Your task to perform on an android device: Open Yahoo.com Image 0: 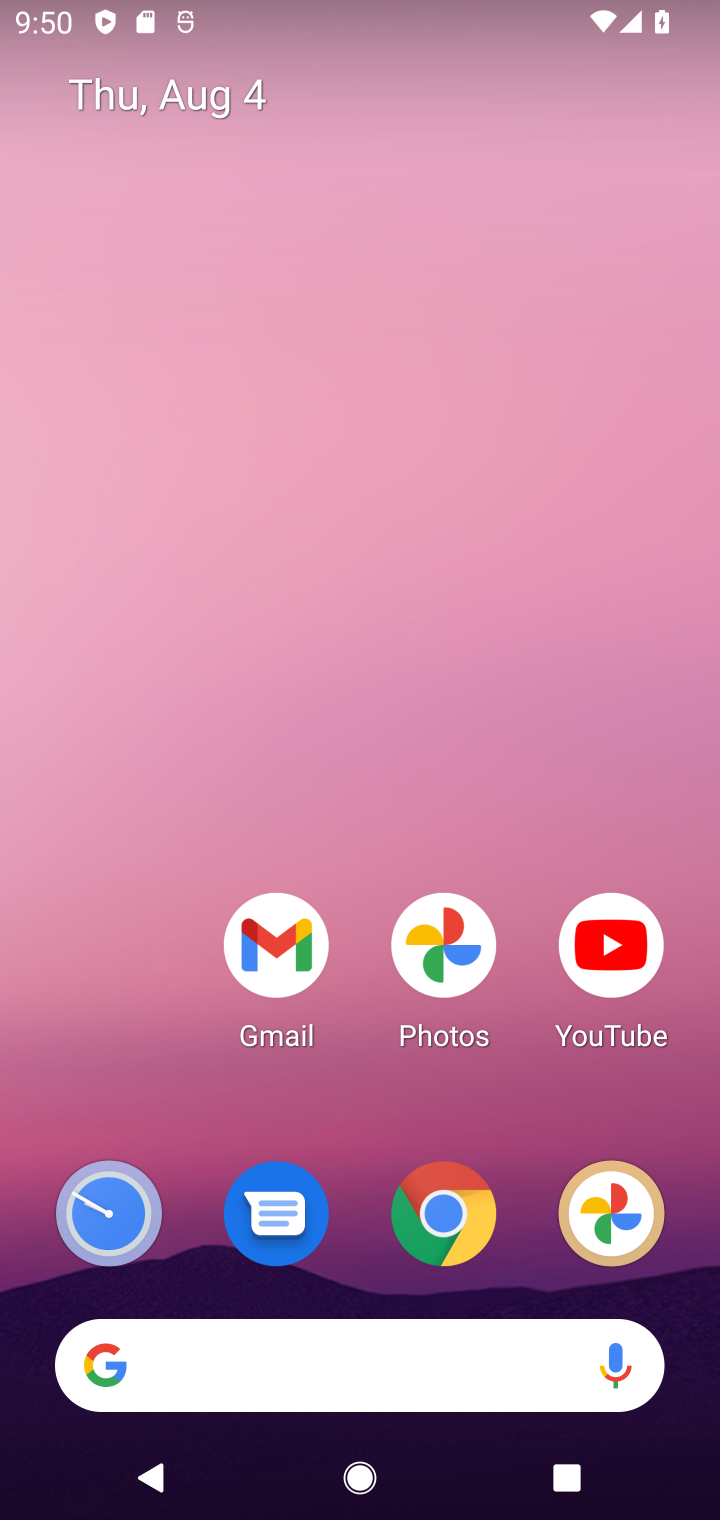
Step 0: click (445, 1230)
Your task to perform on an android device: Open Yahoo.com Image 1: 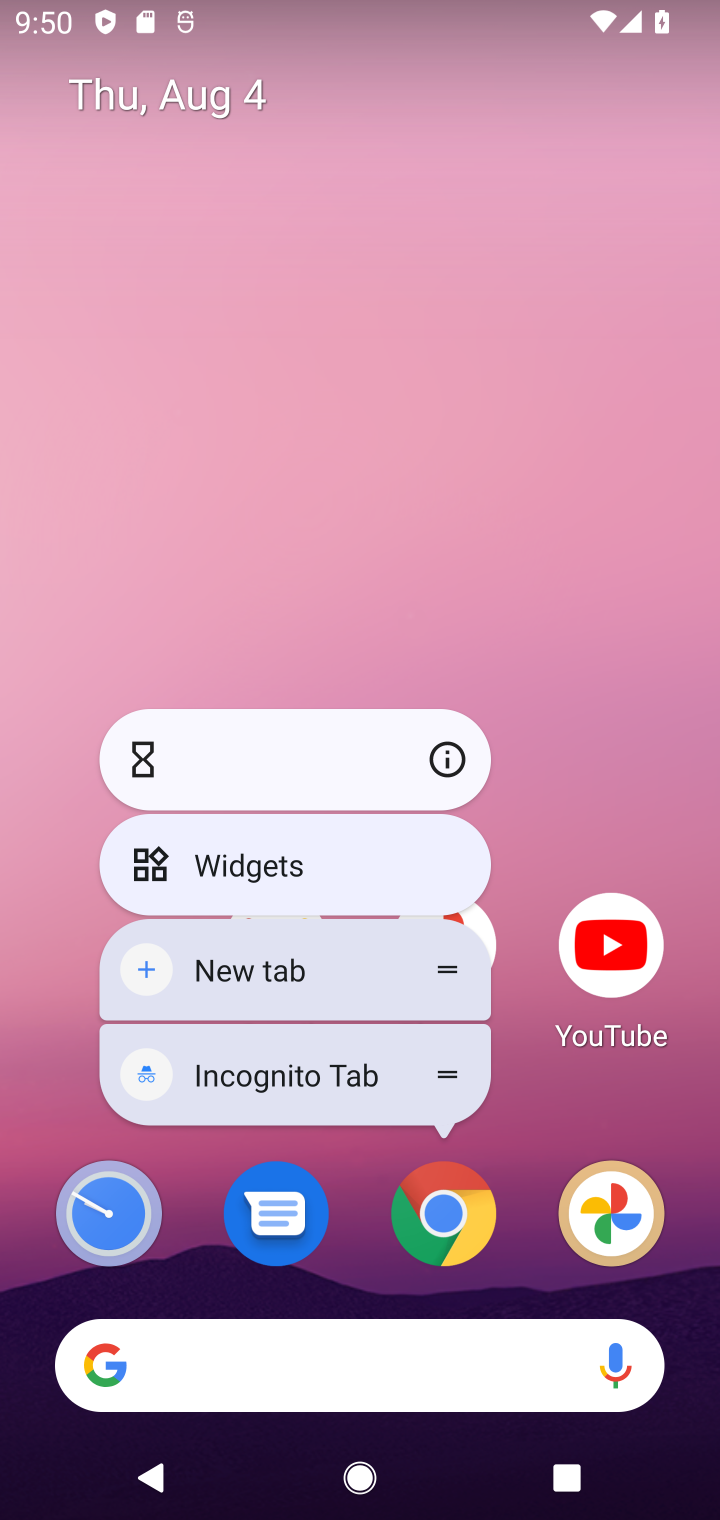
Step 1: click (430, 1209)
Your task to perform on an android device: Open Yahoo.com Image 2: 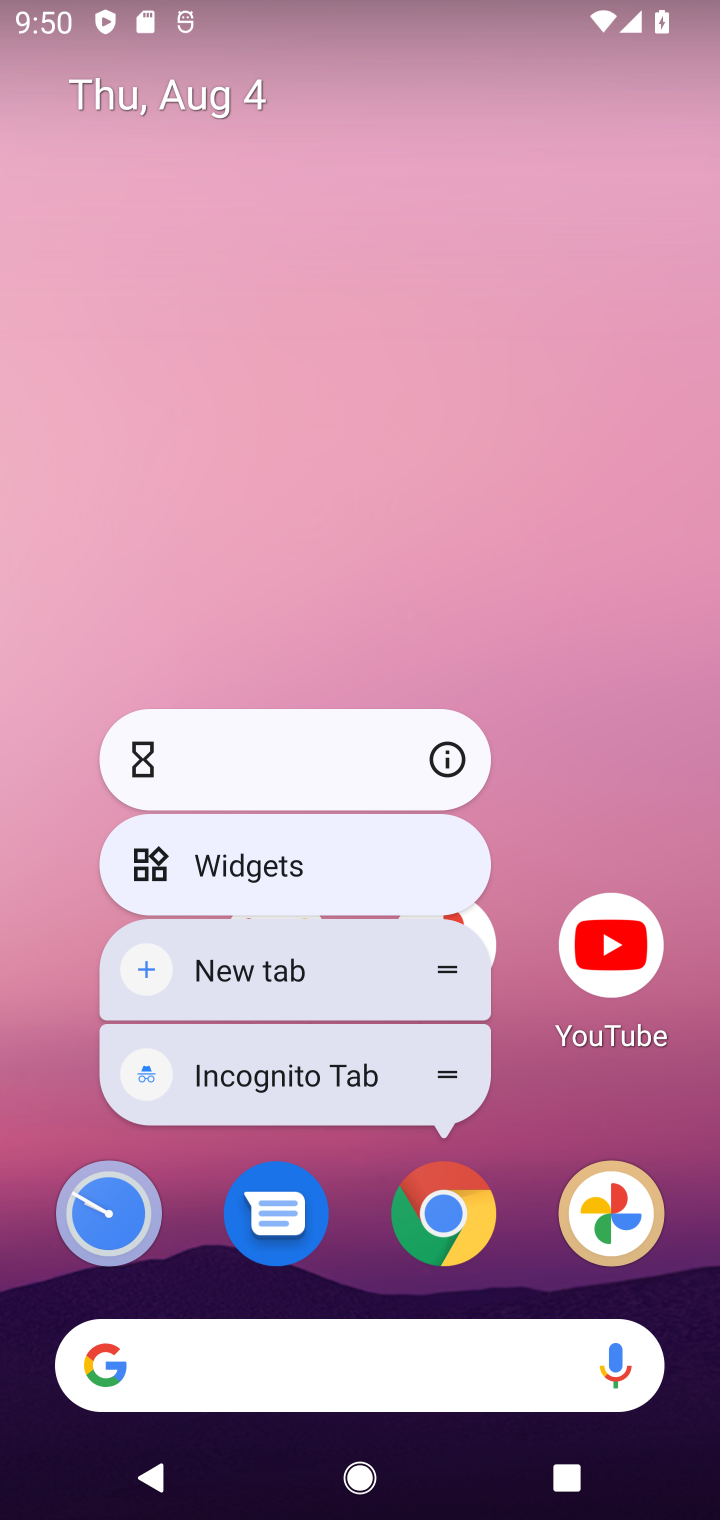
Step 2: click (457, 1230)
Your task to perform on an android device: Open Yahoo.com Image 3: 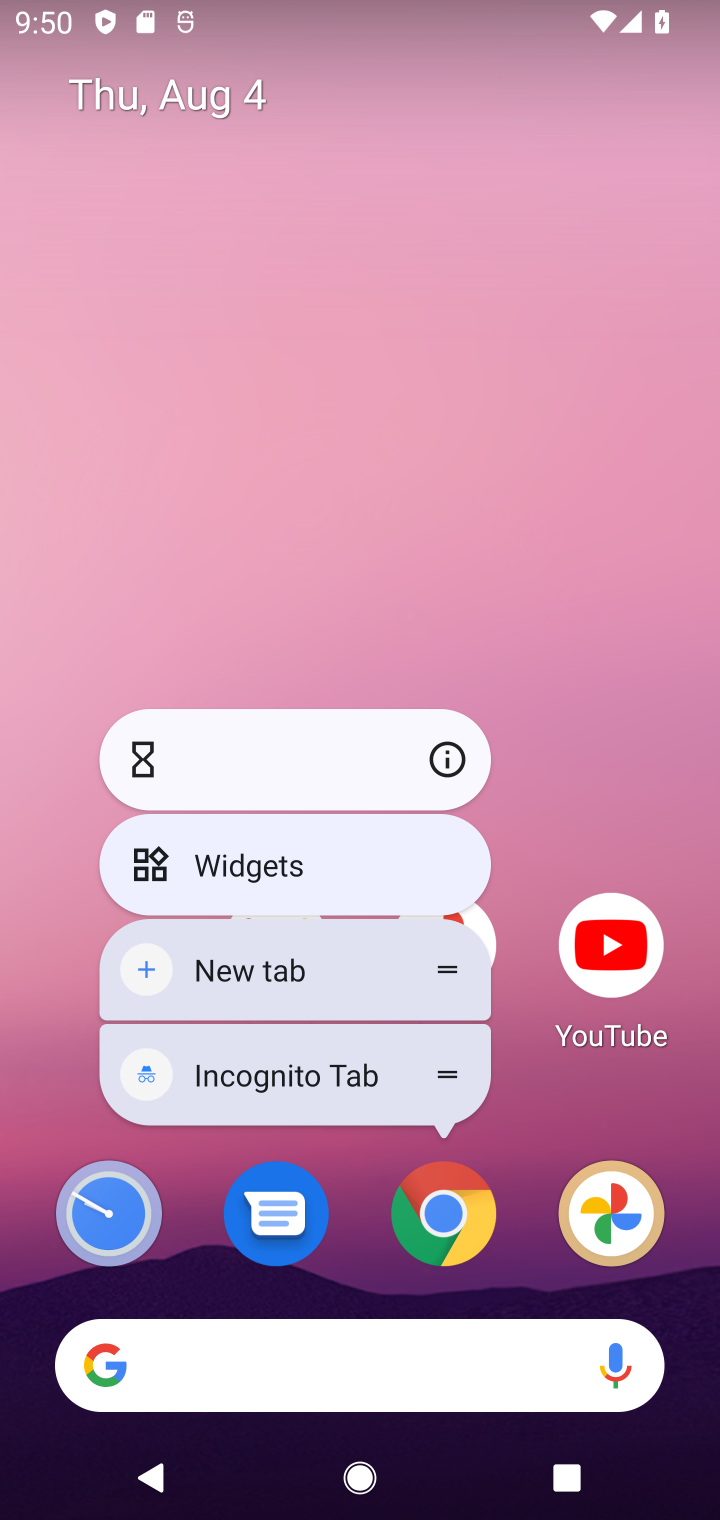
Step 3: click (459, 1251)
Your task to perform on an android device: Open Yahoo.com Image 4: 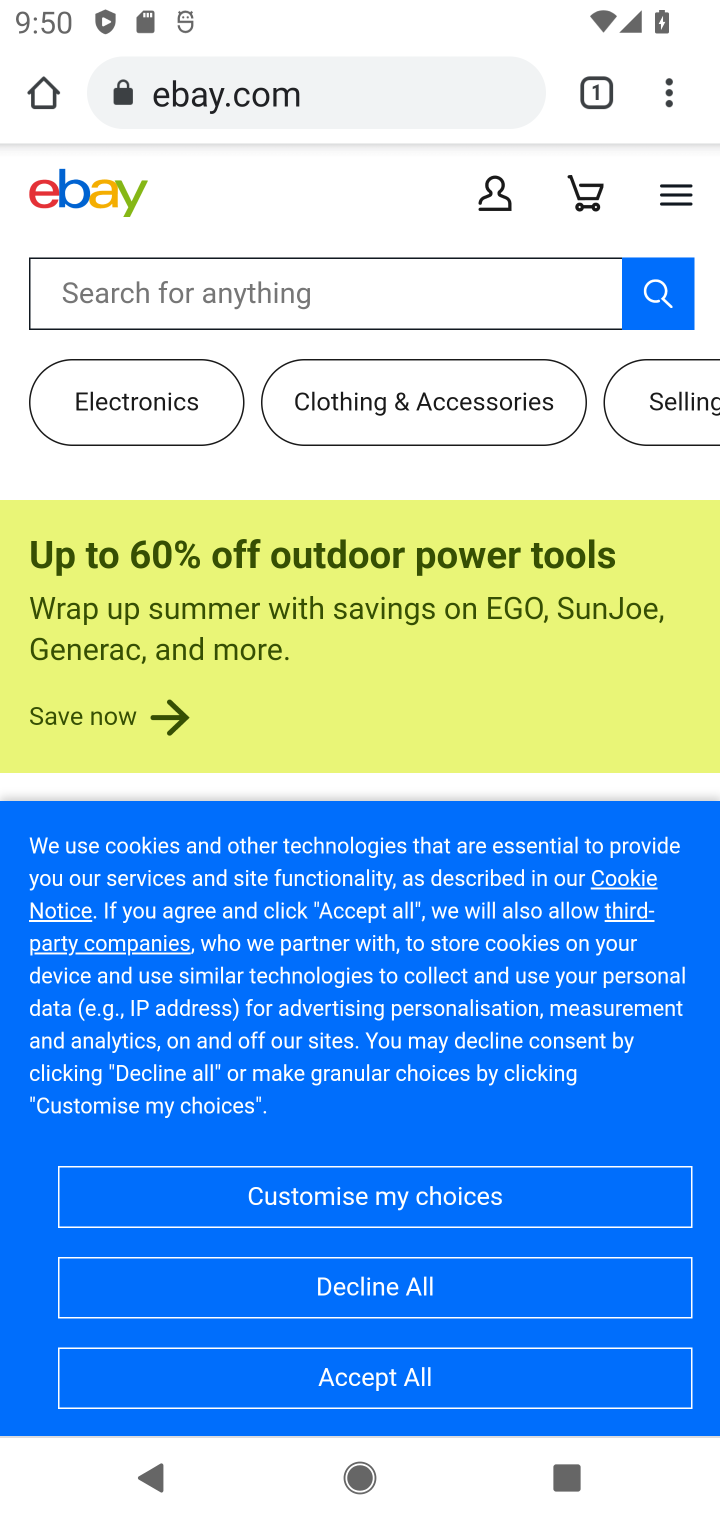
Step 4: click (340, 73)
Your task to perform on an android device: Open Yahoo.com Image 5: 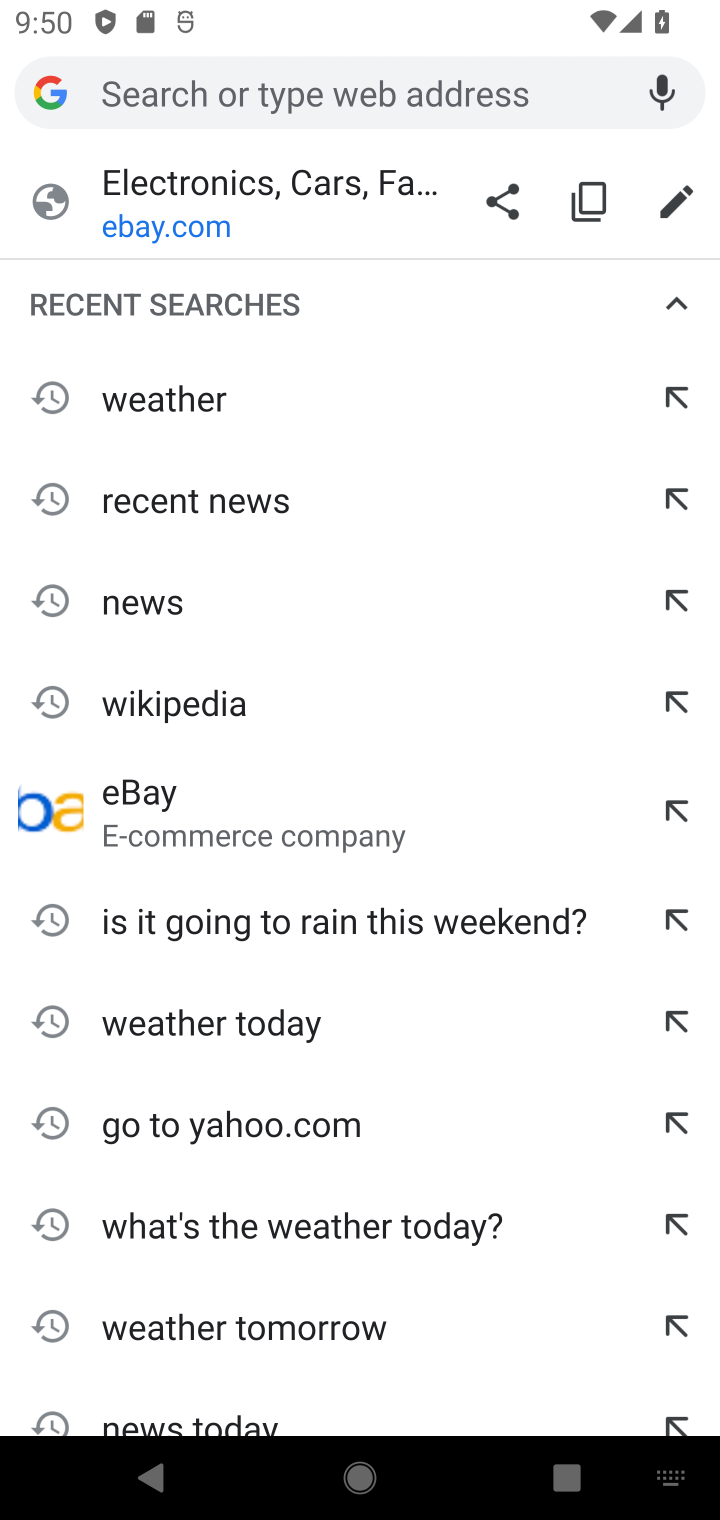
Step 5: type "yahoo.com"
Your task to perform on an android device: Open Yahoo.com Image 6: 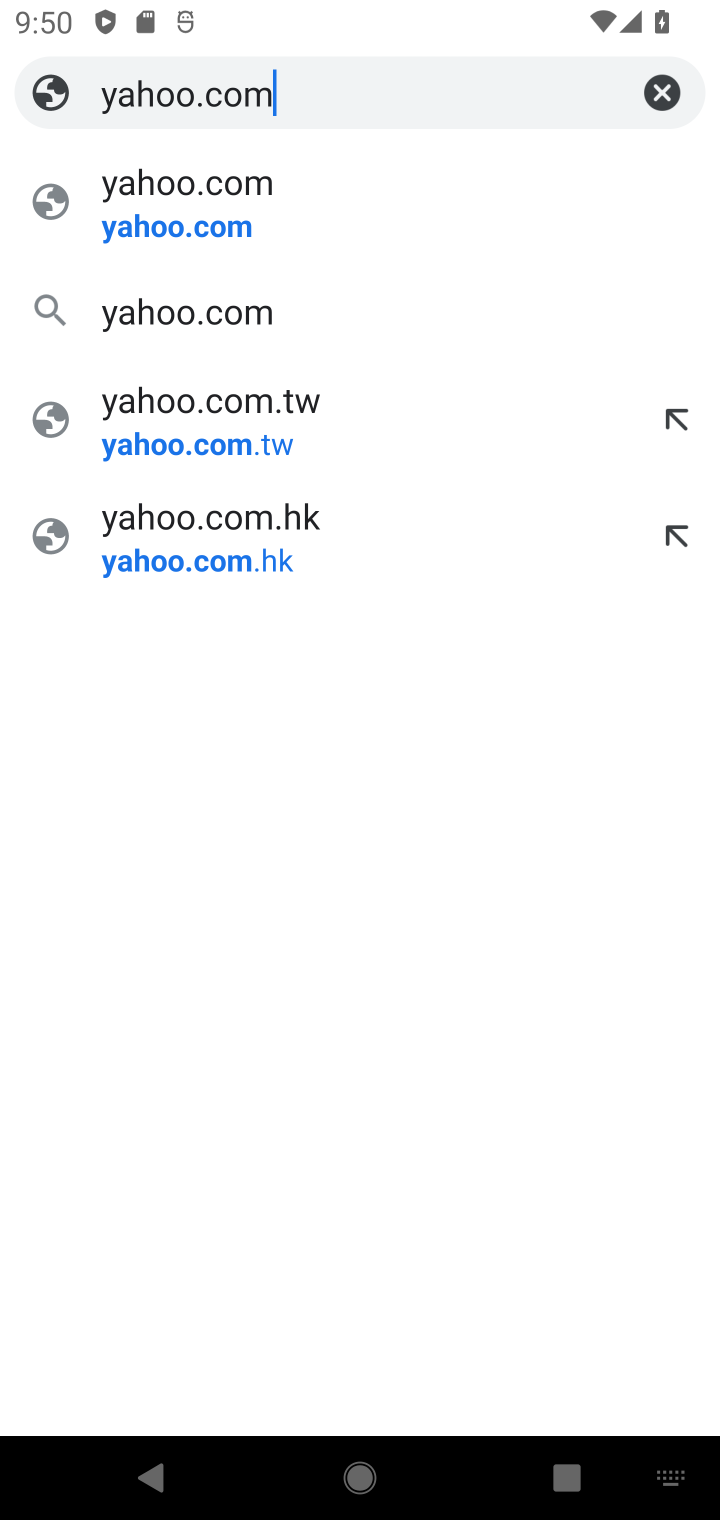
Step 6: click (231, 198)
Your task to perform on an android device: Open Yahoo.com Image 7: 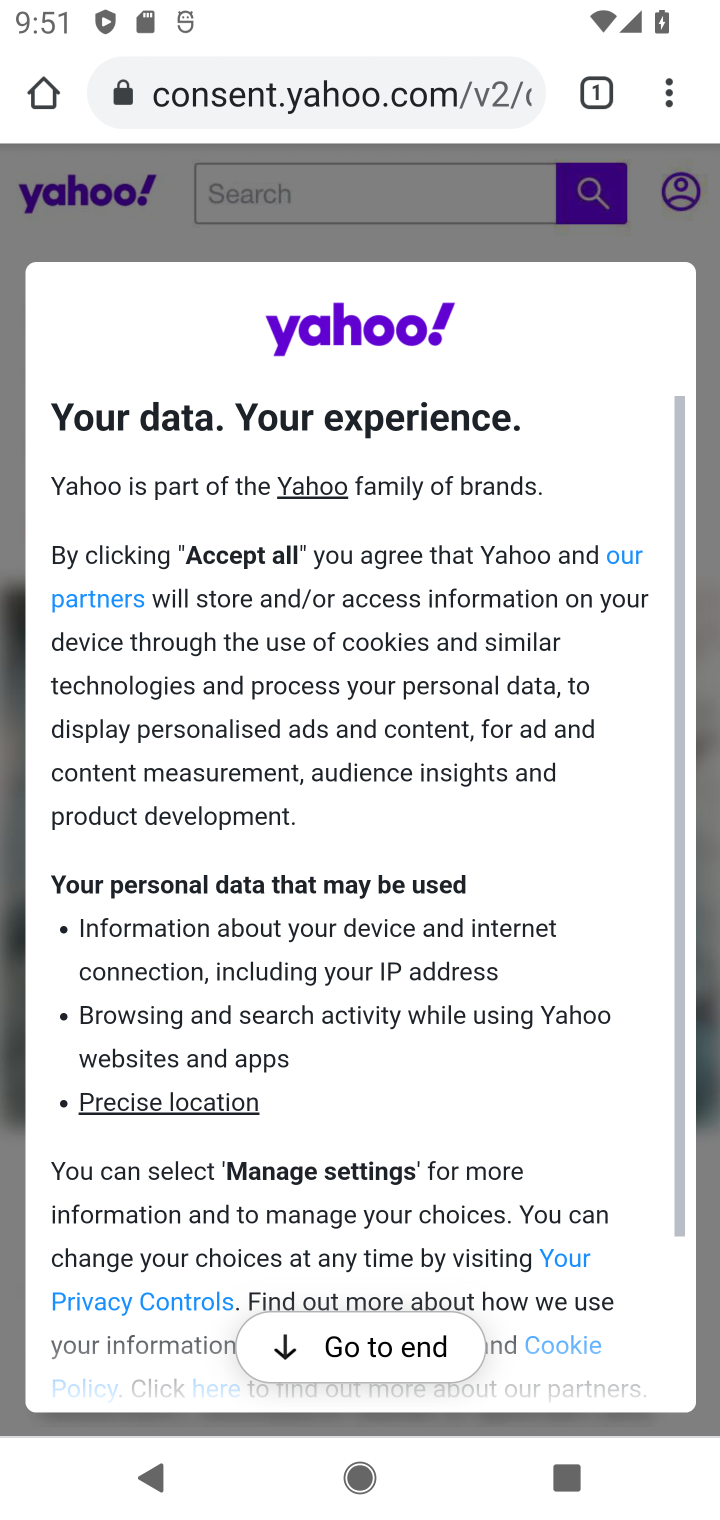
Step 7: task complete